Your task to perform on an android device: Go to Maps Image 0: 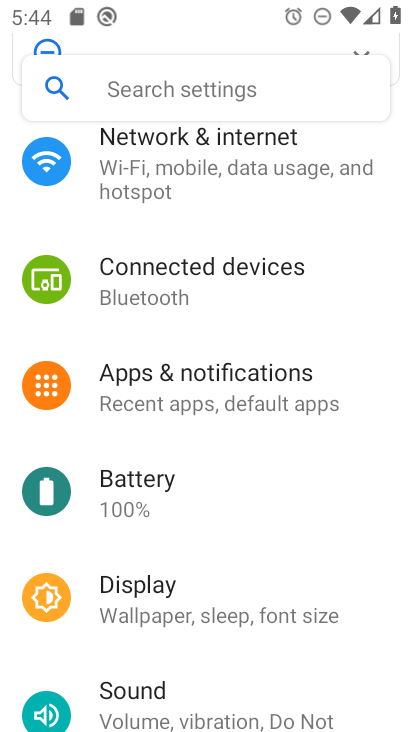
Step 0: press home button
Your task to perform on an android device: Go to Maps Image 1: 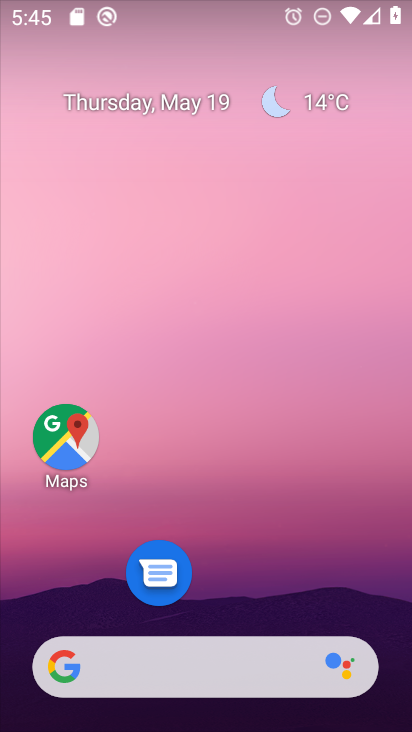
Step 1: click (73, 450)
Your task to perform on an android device: Go to Maps Image 2: 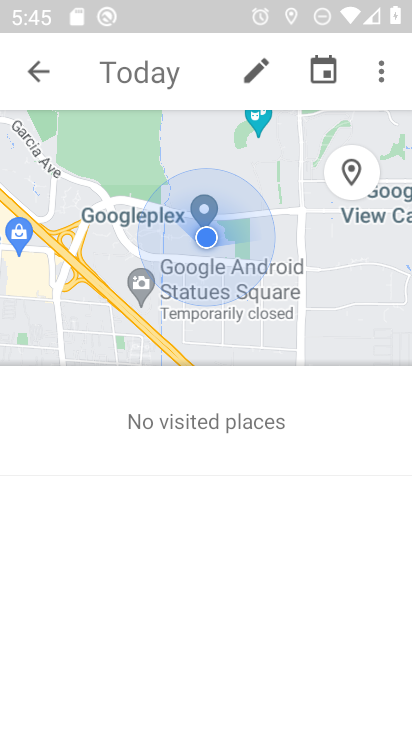
Step 2: task complete